Your task to perform on an android device: check the backup settings in the google photos Image 0: 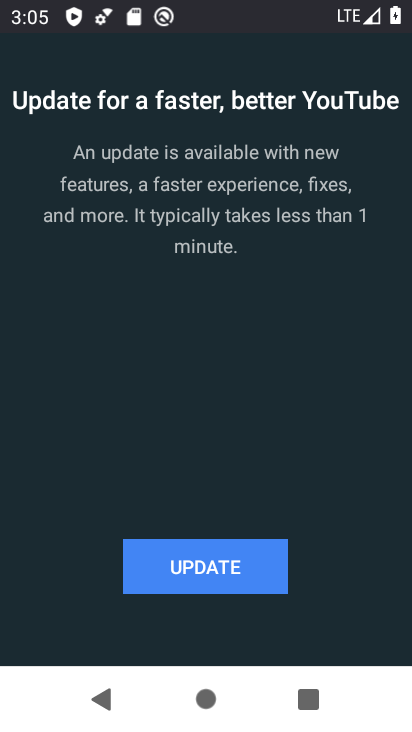
Step 0: press home button
Your task to perform on an android device: check the backup settings in the google photos Image 1: 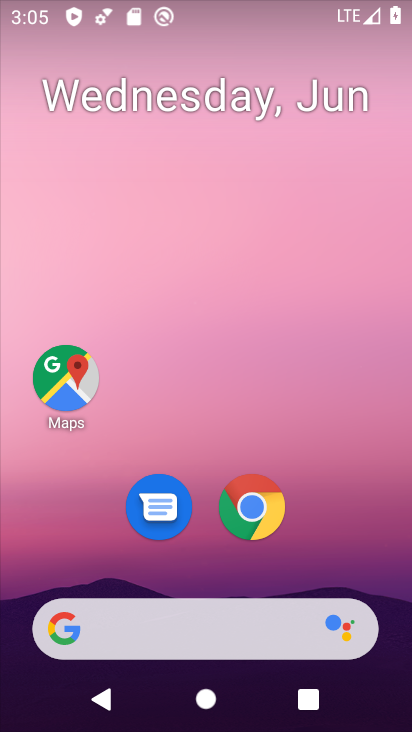
Step 1: drag from (222, 575) to (267, 49)
Your task to perform on an android device: check the backup settings in the google photos Image 2: 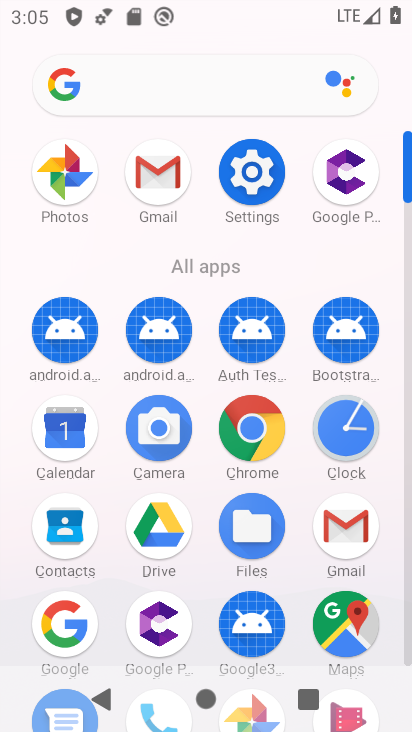
Step 2: click (71, 181)
Your task to perform on an android device: check the backup settings in the google photos Image 3: 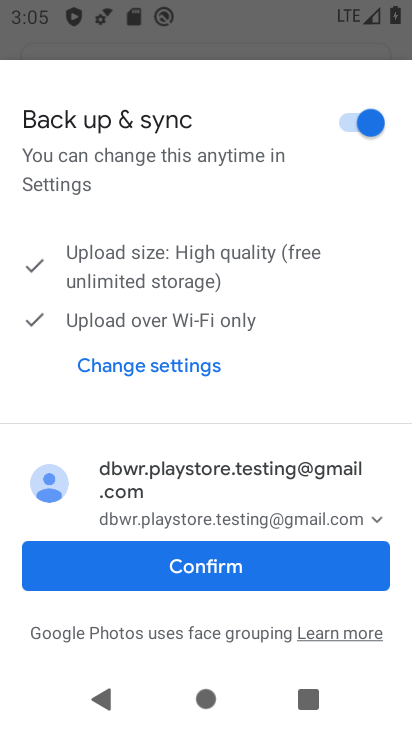
Step 3: click (64, 89)
Your task to perform on an android device: check the backup settings in the google photos Image 4: 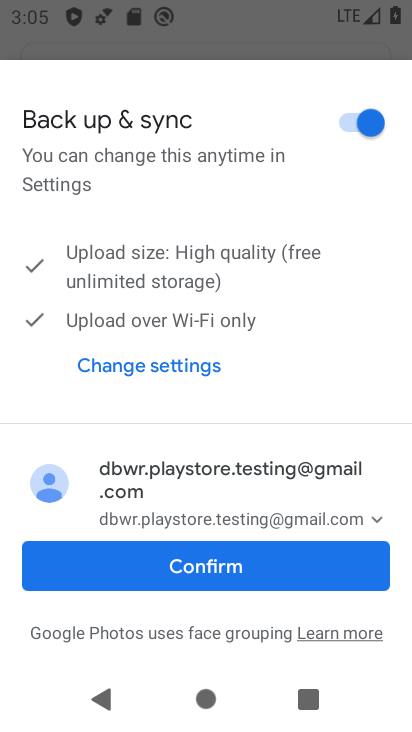
Step 4: click (149, 358)
Your task to perform on an android device: check the backup settings in the google photos Image 5: 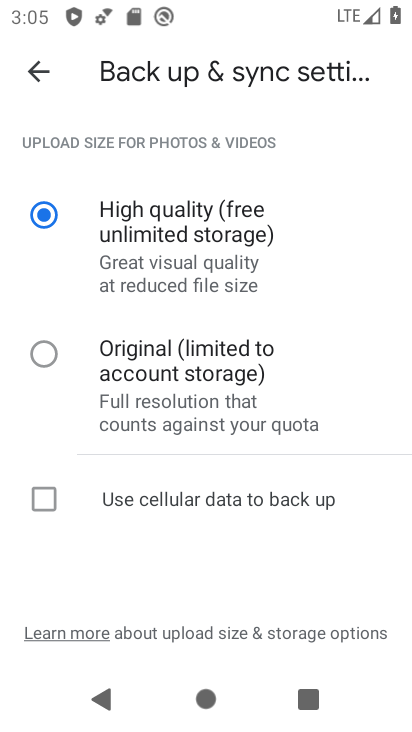
Step 5: task complete